Your task to perform on an android device: open app "Pinterest" (install if not already installed) and go to login screen Image 0: 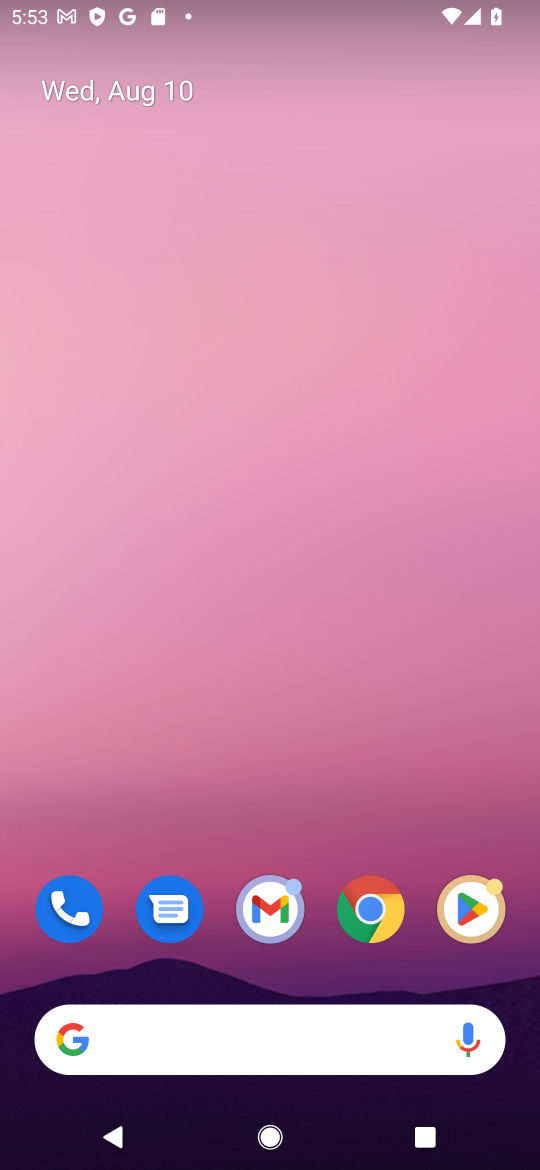
Step 0: click (369, 822)
Your task to perform on an android device: open app "Pinterest" (install if not already installed) and go to login screen Image 1: 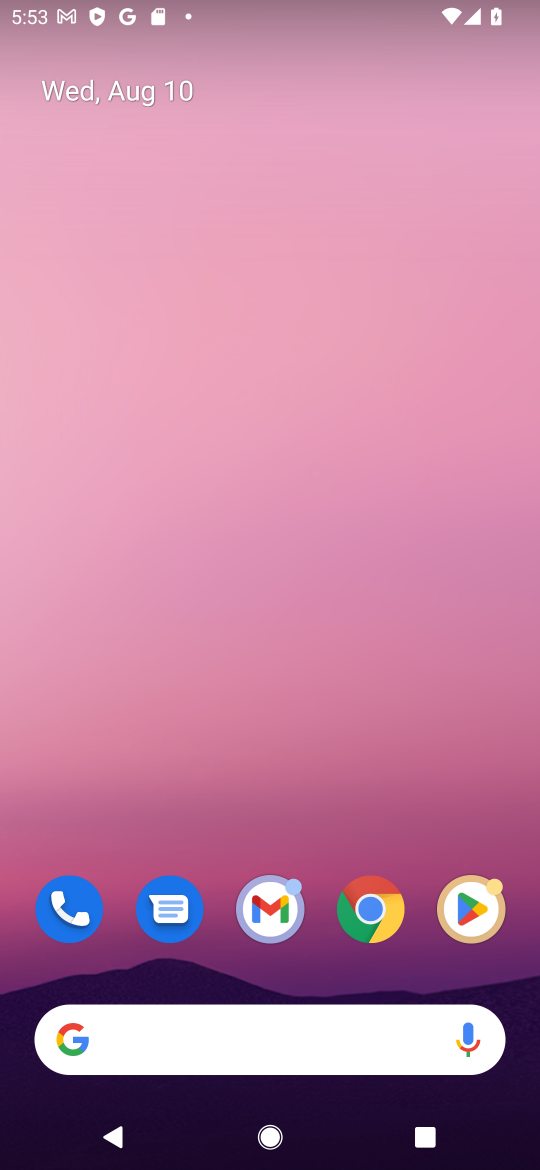
Step 1: click (497, 911)
Your task to perform on an android device: open app "Pinterest" (install if not already installed) and go to login screen Image 2: 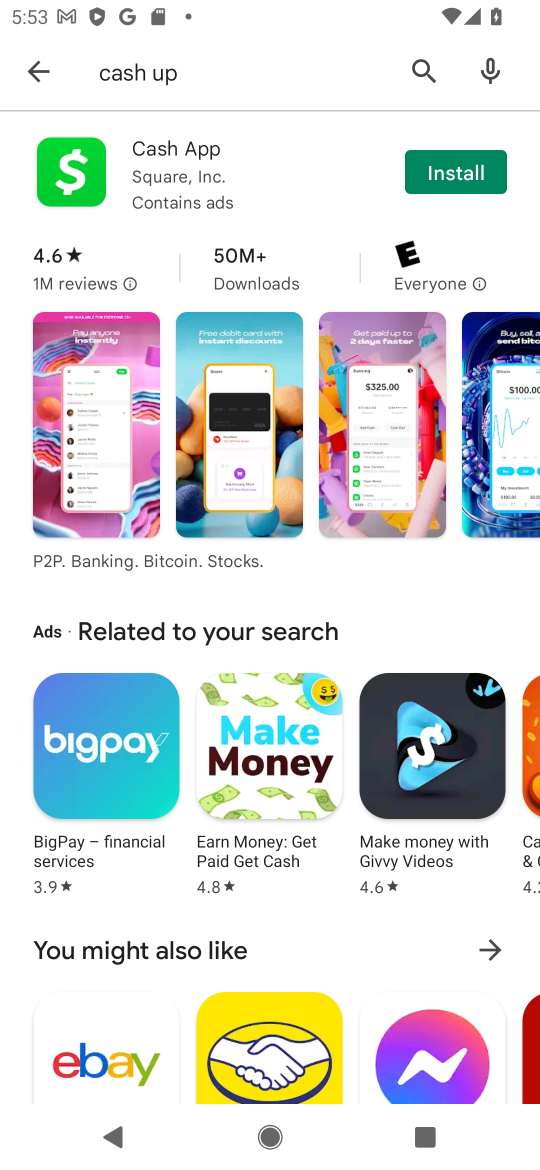
Step 2: click (420, 80)
Your task to perform on an android device: open app "Pinterest" (install if not already installed) and go to login screen Image 3: 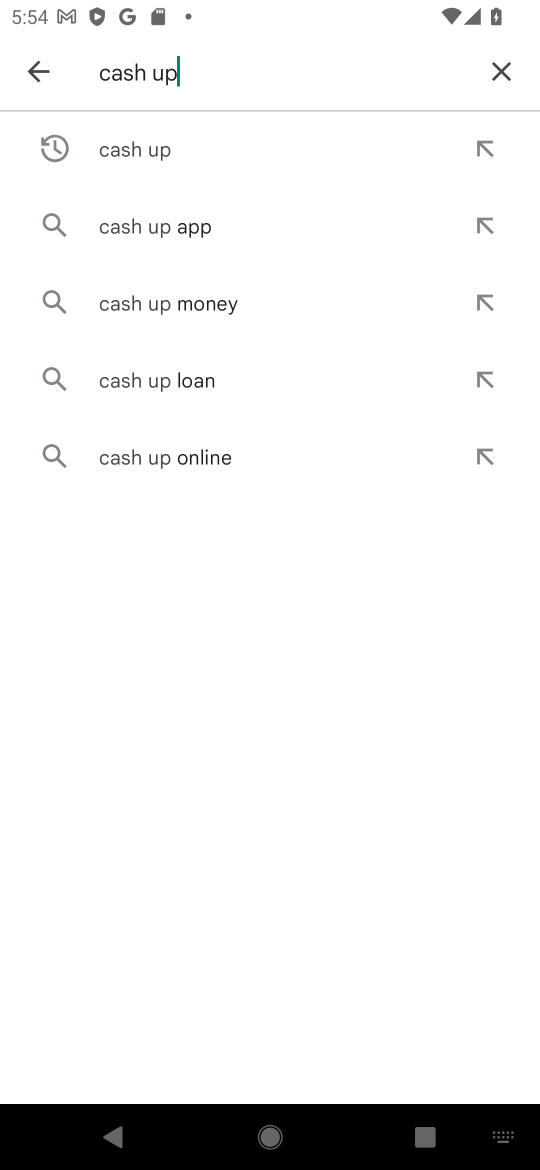
Step 3: click (503, 73)
Your task to perform on an android device: open app "Pinterest" (install if not already installed) and go to login screen Image 4: 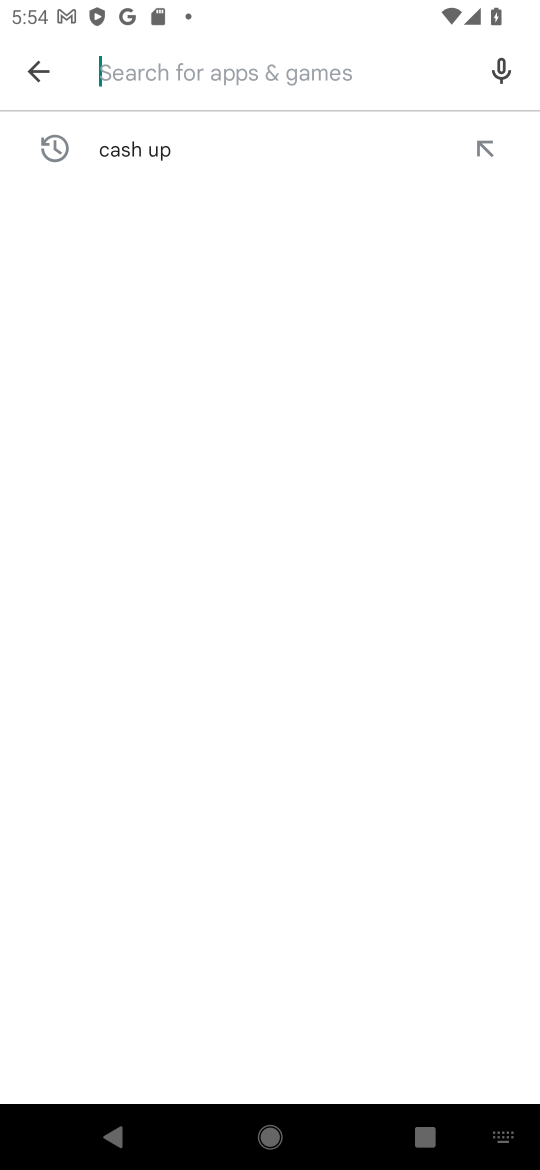
Step 4: type "pinterest"
Your task to perform on an android device: open app "Pinterest" (install if not already installed) and go to login screen Image 5: 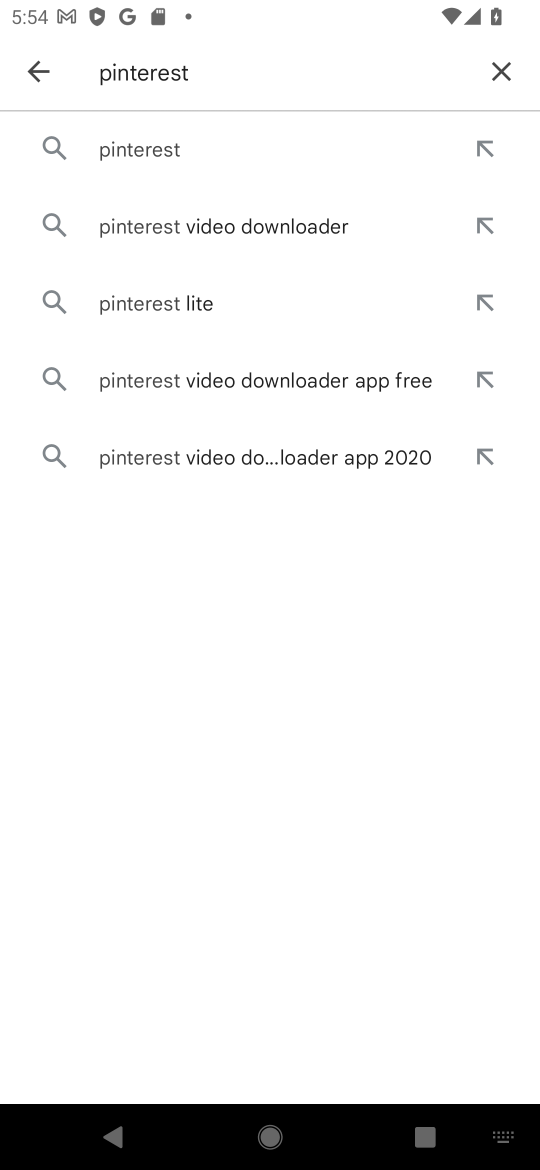
Step 5: click (111, 139)
Your task to perform on an android device: open app "Pinterest" (install if not already installed) and go to login screen Image 6: 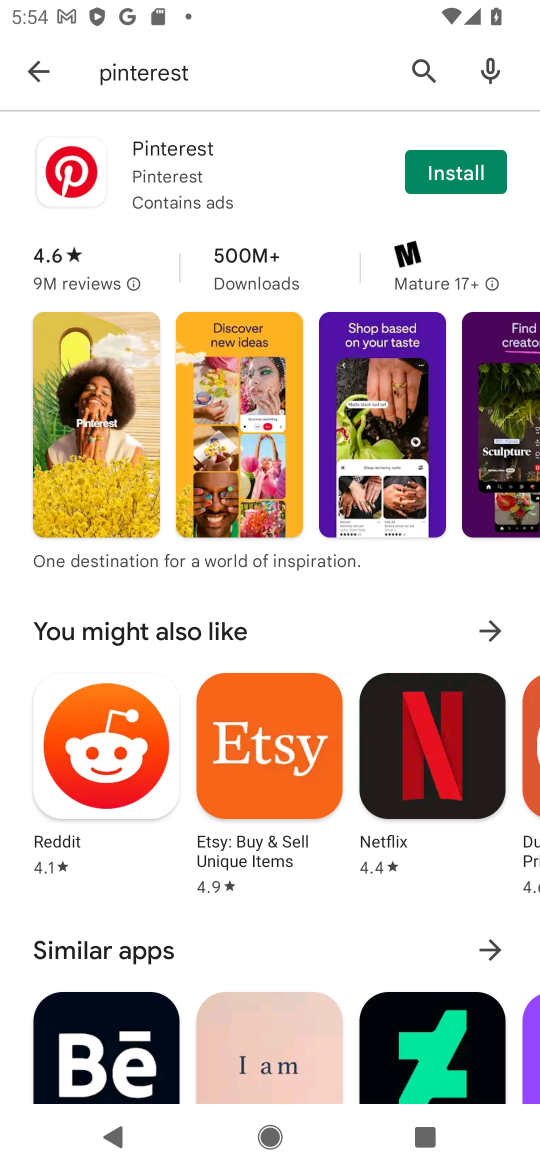
Step 6: click (441, 175)
Your task to perform on an android device: open app "Pinterest" (install if not already installed) and go to login screen Image 7: 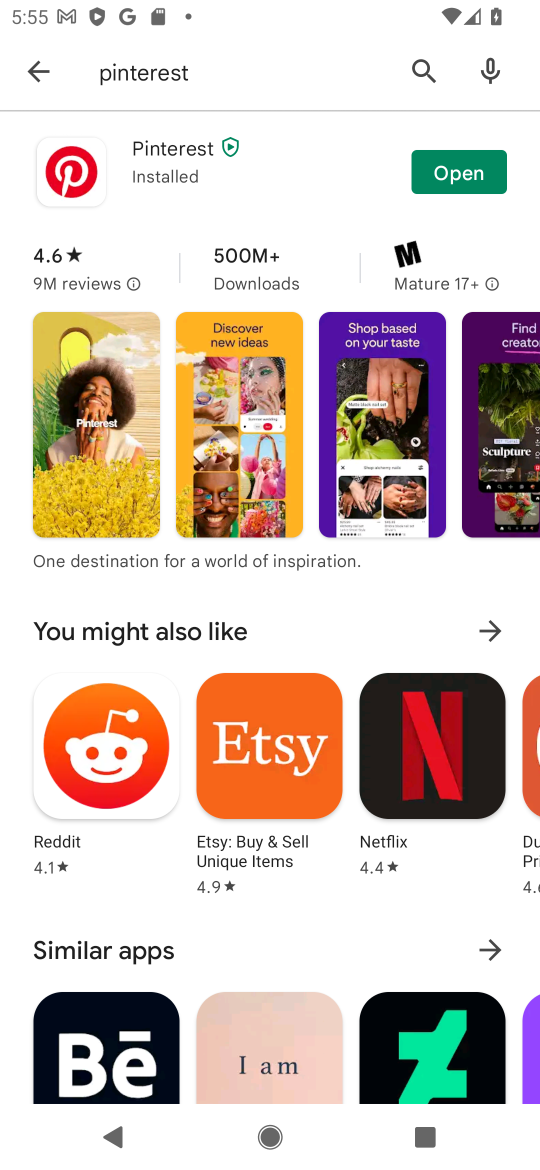
Step 7: click (473, 176)
Your task to perform on an android device: open app "Pinterest" (install if not already installed) and go to login screen Image 8: 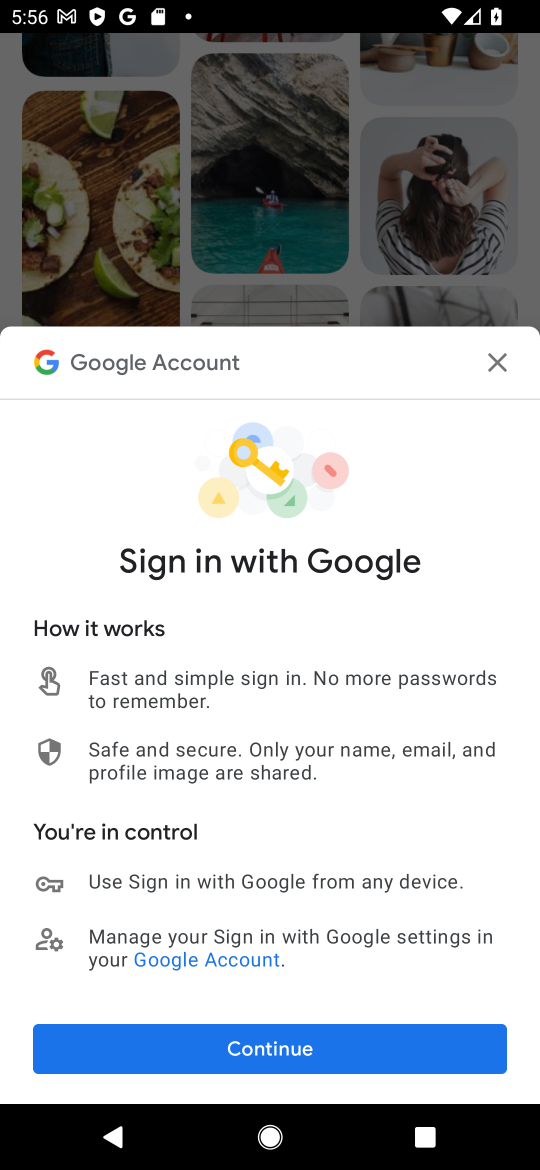
Step 8: click (173, 1050)
Your task to perform on an android device: open app "Pinterest" (install if not already installed) and go to login screen Image 9: 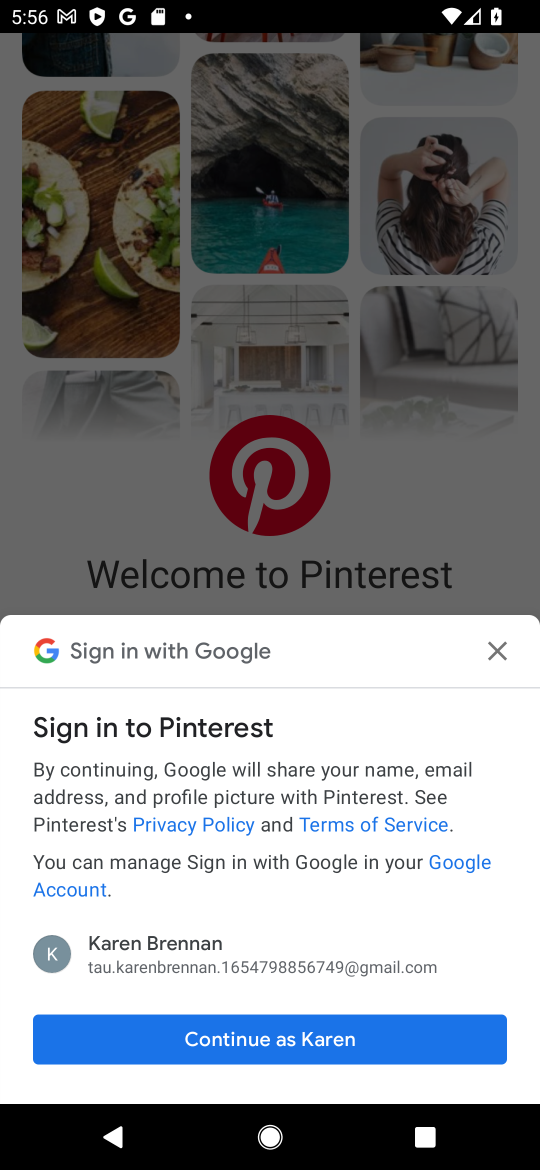
Step 9: click (492, 663)
Your task to perform on an android device: open app "Pinterest" (install if not already installed) and go to login screen Image 10: 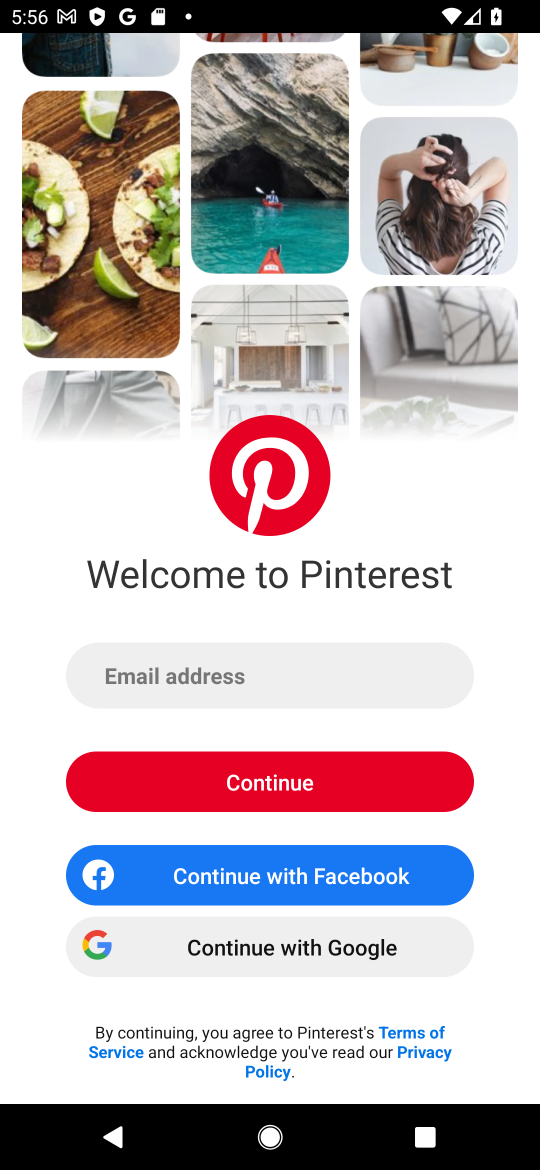
Step 10: task complete